Your task to perform on an android device: Go to wifi settings Image 0: 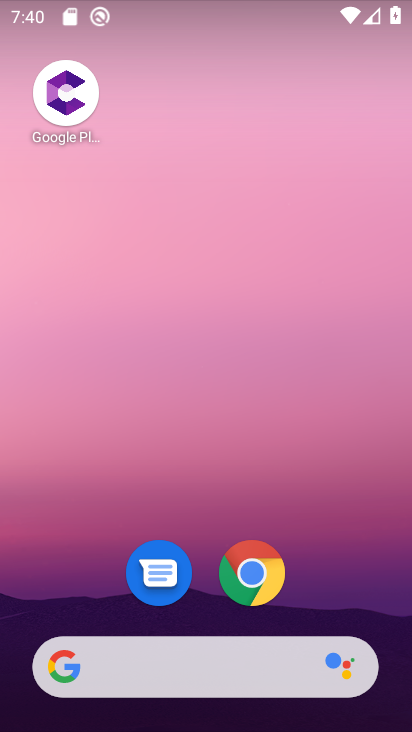
Step 0: drag from (329, 603) to (323, 85)
Your task to perform on an android device: Go to wifi settings Image 1: 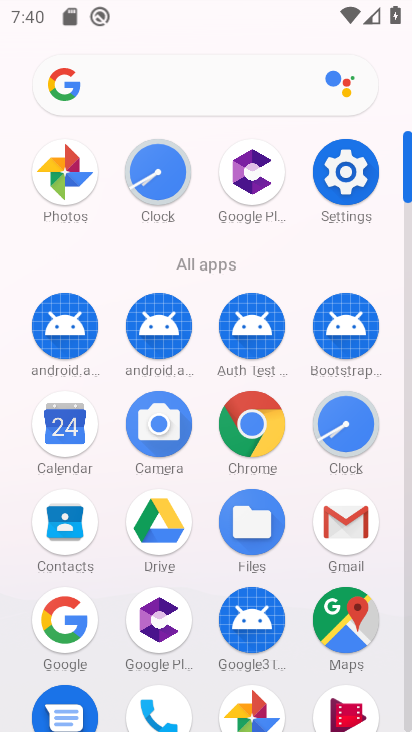
Step 1: click (340, 177)
Your task to perform on an android device: Go to wifi settings Image 2: 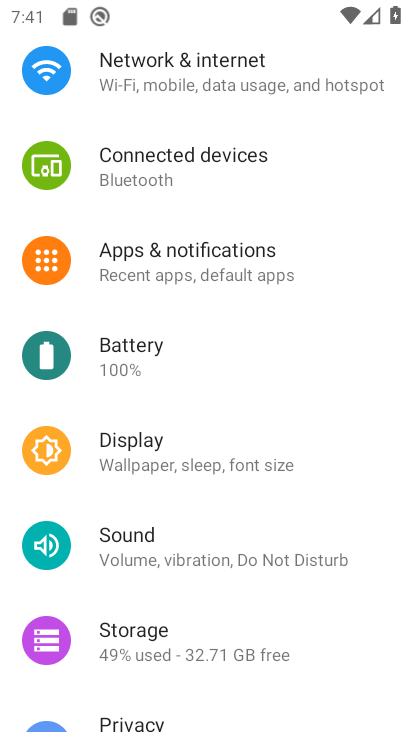
Step 2: drag from (331, 154) to (353, 558)
Your task to perform on an android device: Go to wifi settings Image 3: 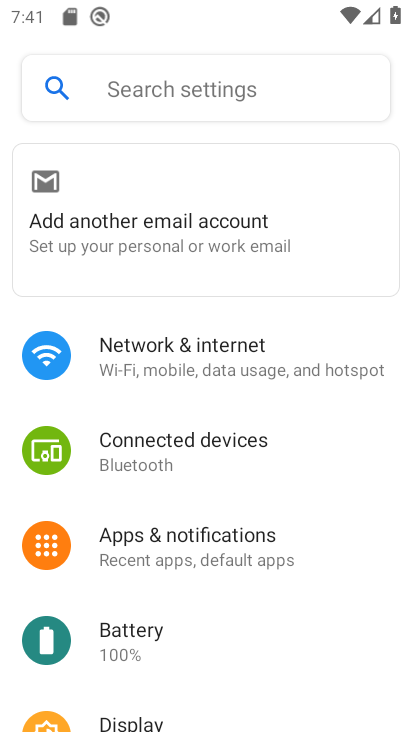
Step 3: click (115, 320)
Your task to perform on an android device: Go to wifi settings Image 4: 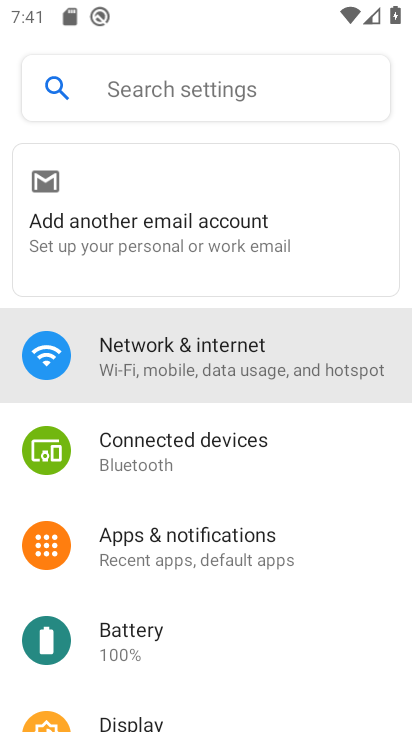
Step 4: click (121, 332)
Your task to perform on an android device: Go to wifi settings Image 5: 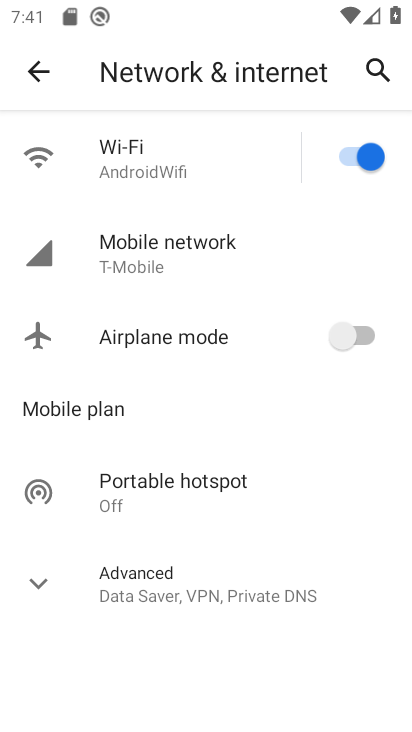
Step 5: click (166, 164)
Your task to perform on an android device: Go to wifi settings Image 6: 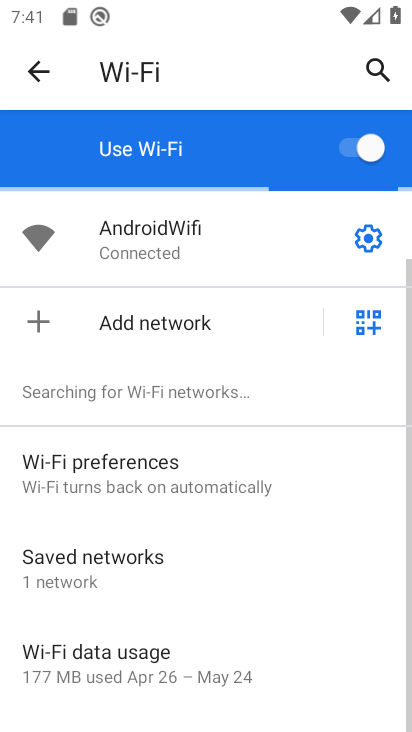
Step 6: task complete